Your task to perform on an android device: choose inbox layout in the gmail app Image 0: 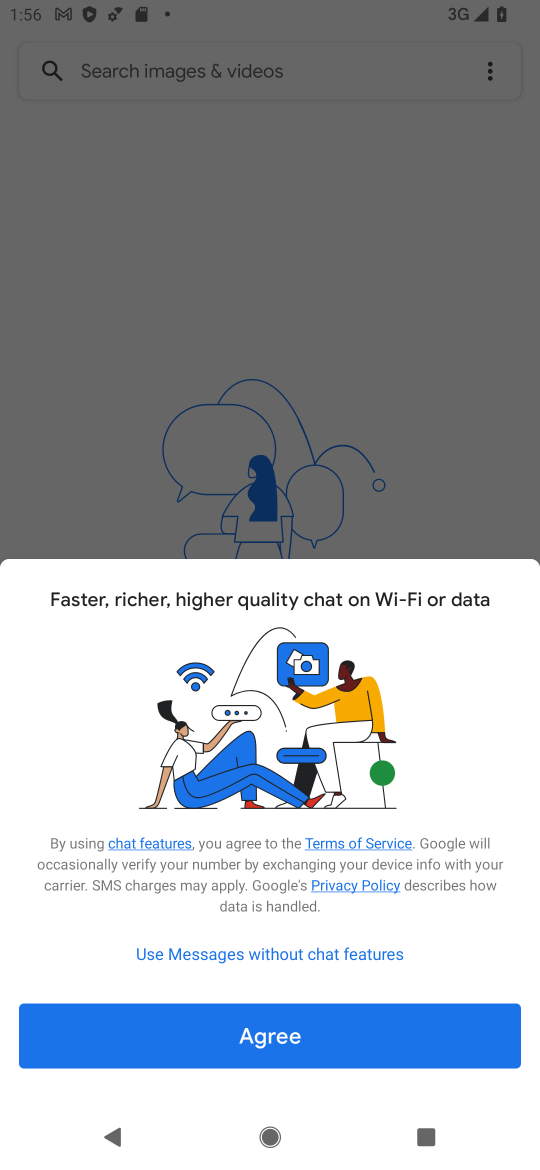
Step 0: press home button
Your task to perform on an android device: choose inbox layout in the gmail app Image 1: 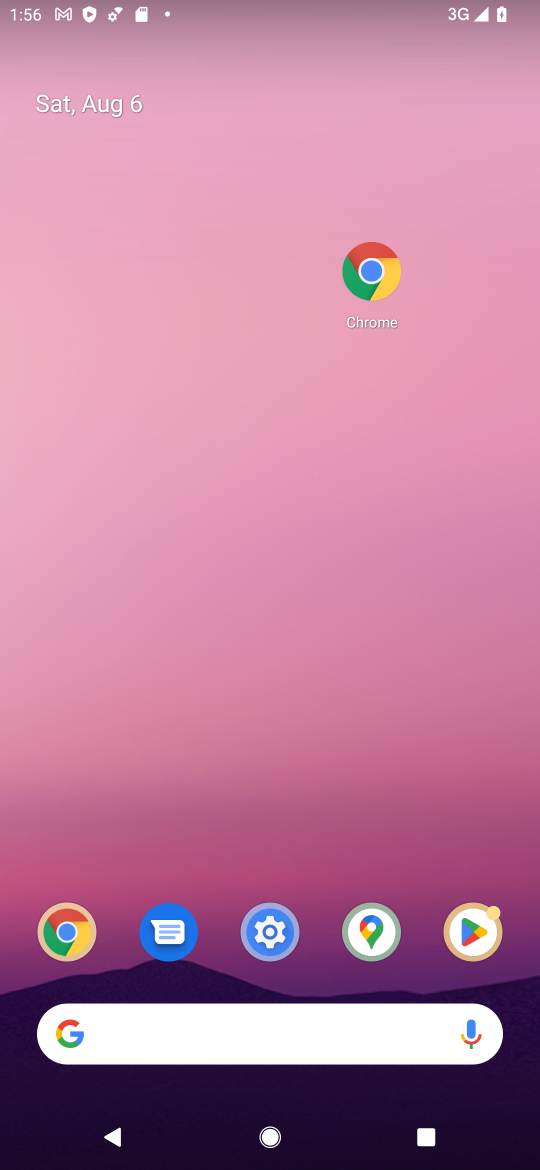
Step 1: drag from (316, 981) to (307, 79)
Your task to perform on an android device: choose inbox layout in the gmail app Image 2: 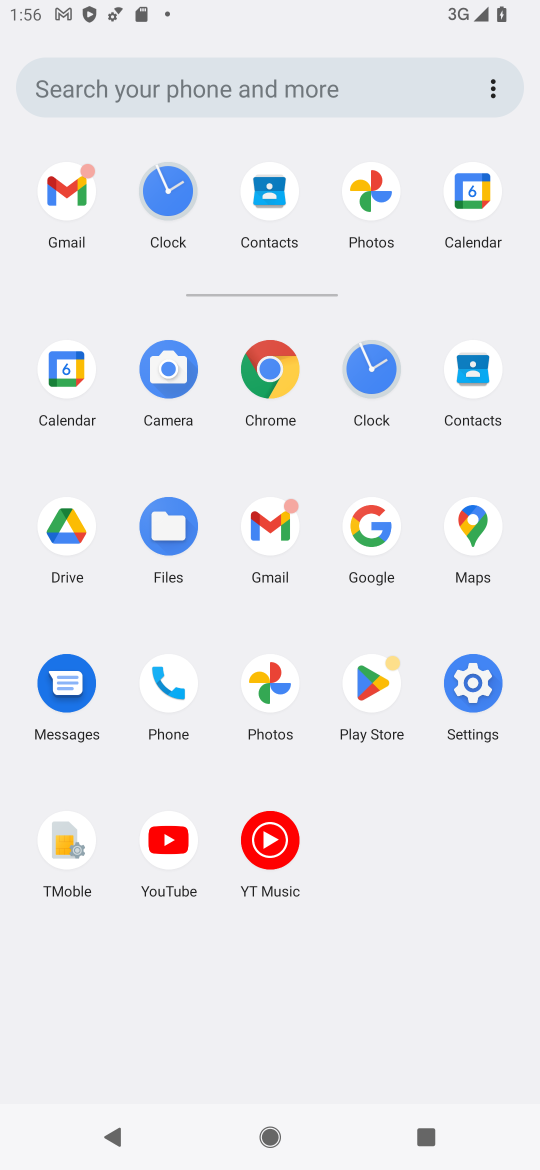
Step 2: click (267, 520)
Your task to perform on an android device: choose inbox layout in the gmail app Image 3: 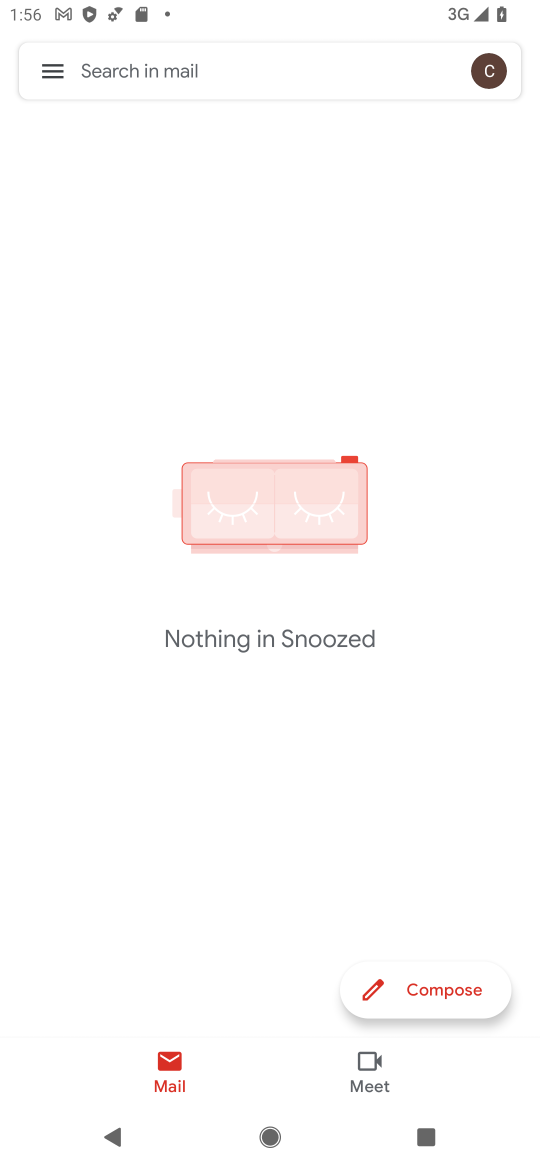
Step 3: click (46, 65)
Your task to perform on an android device: choose inbox layout in the gmail app Image 4: 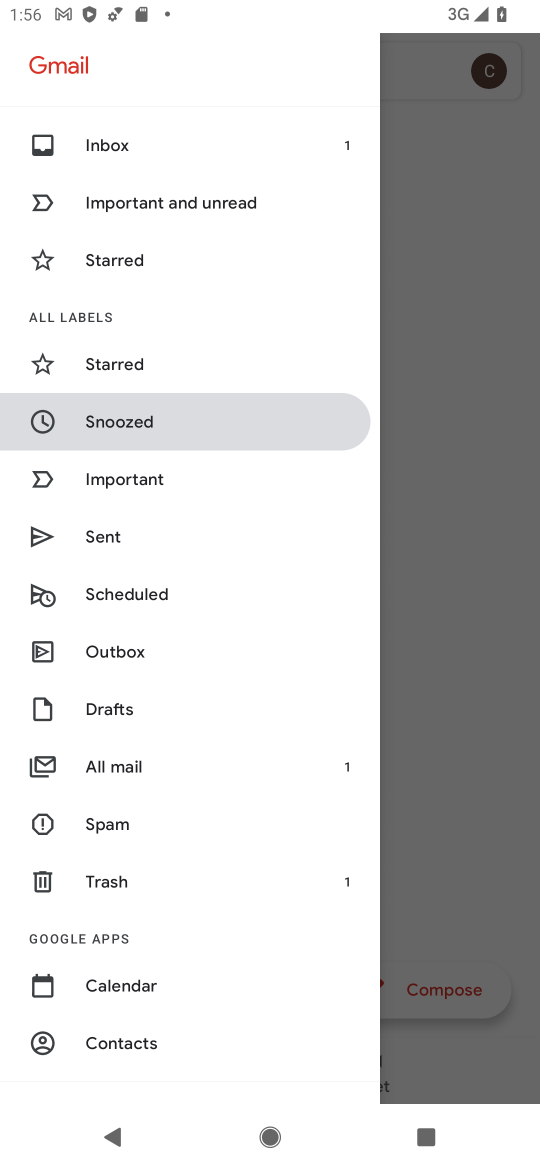
Step 4: drag from (207, 1037) to (197, 301)
Your task to perform on an android device: choose inbox layout in the gmail app Image 5: 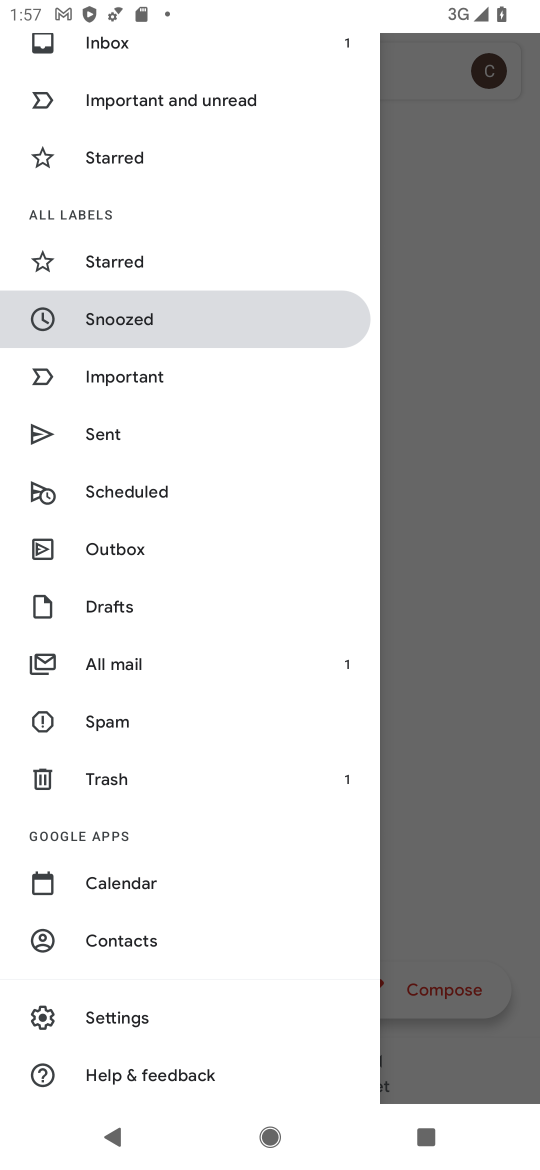
Step 5: click (95, 1011)
Your task to perform on an android device: choose inbox layout in the gmail app Image 6: 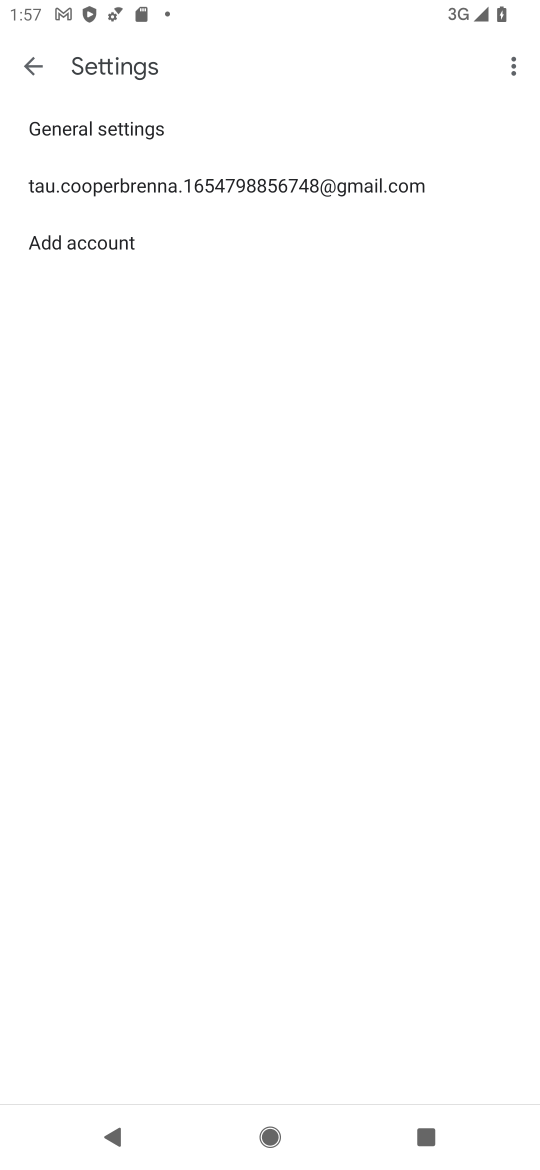
Step 6: click (297, 173)
Your task to perform on an android device: choose inbox layout in the gmail app Image 7: 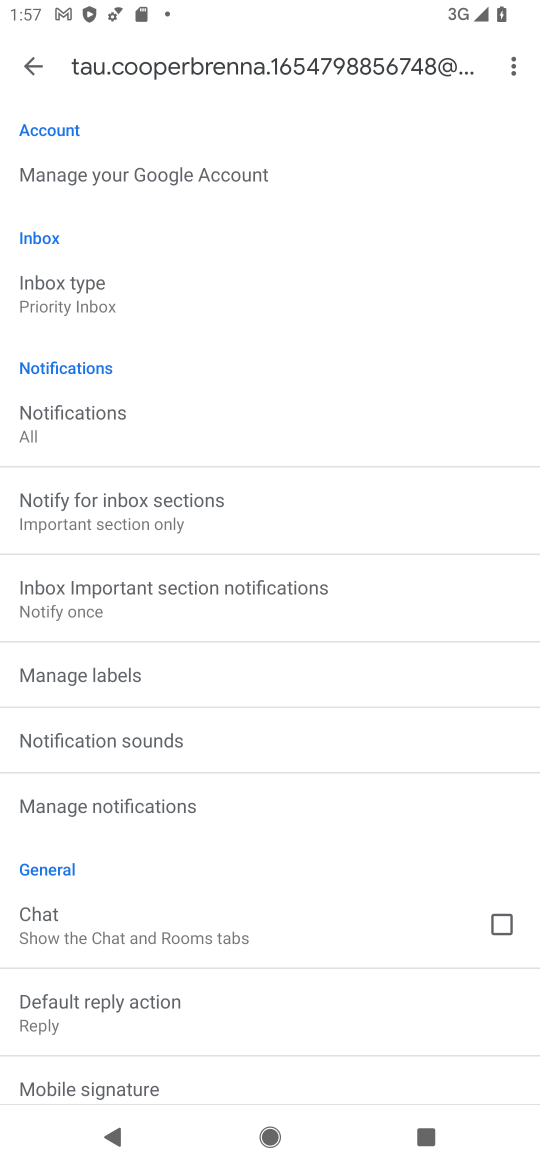
Step 7: click (33, 278)
Your task to perform on an android device: choose inbox layout in the gmail app Image 8: 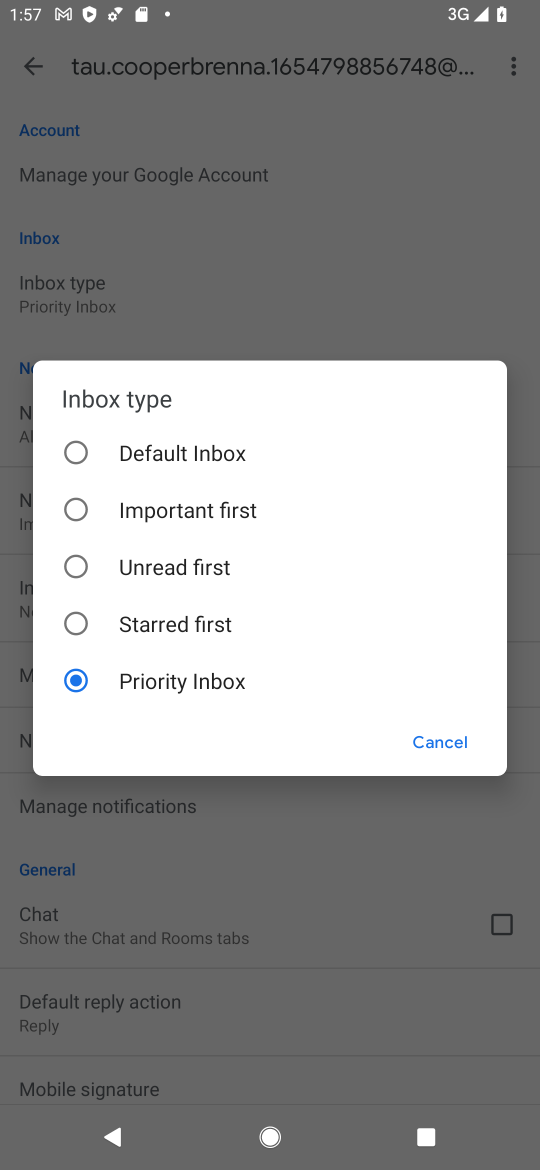
Step 8: click (139, 511)
Your task to perform on an android device: choose inbox layout in the gmail app Image 9: 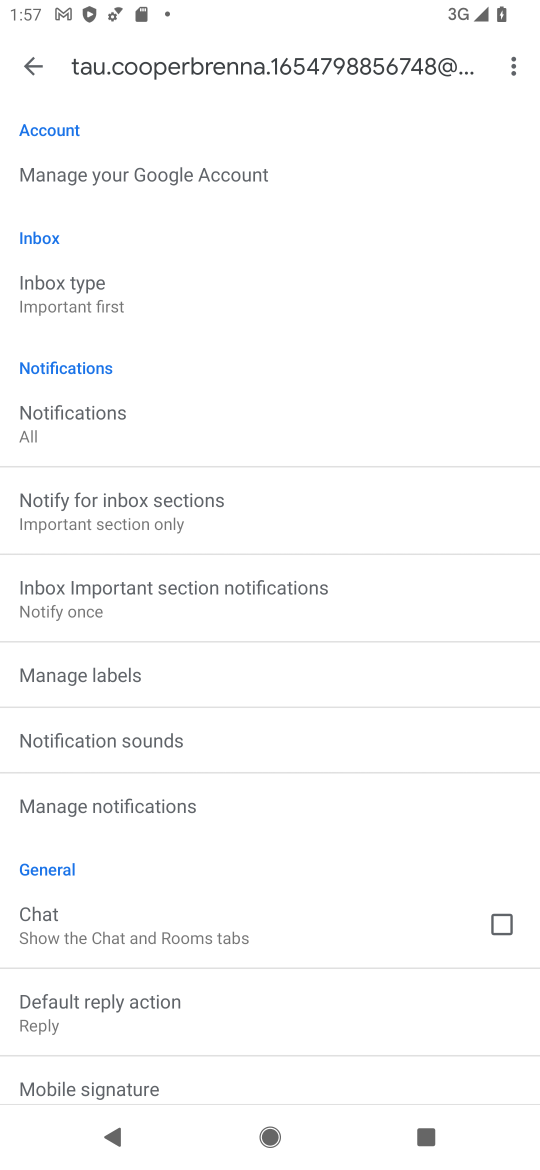
Step 9: task complete